Your task to perform on an android device: Turn off the flashlight Image 0: 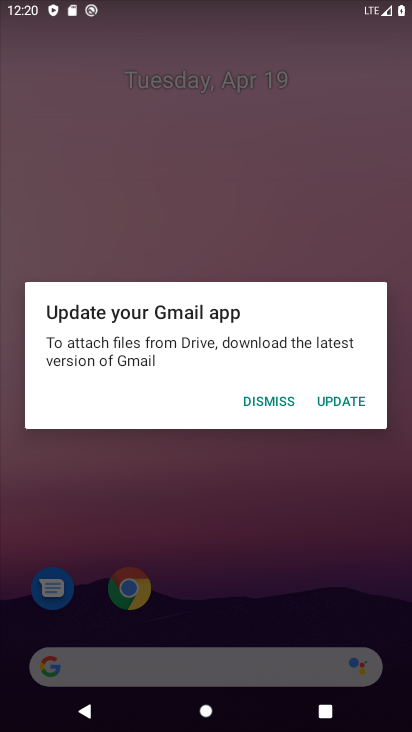
Step 0: press home button
Your task to perform on an android device: Turn off the flashlight Image 1: 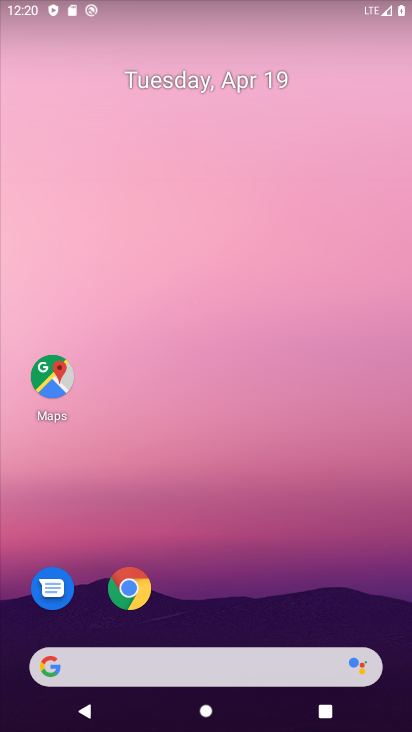
Step 1: drag from (288, 16) to (275, 418)
Your task to perform on an android device: Turn off the flashlight Image 2: 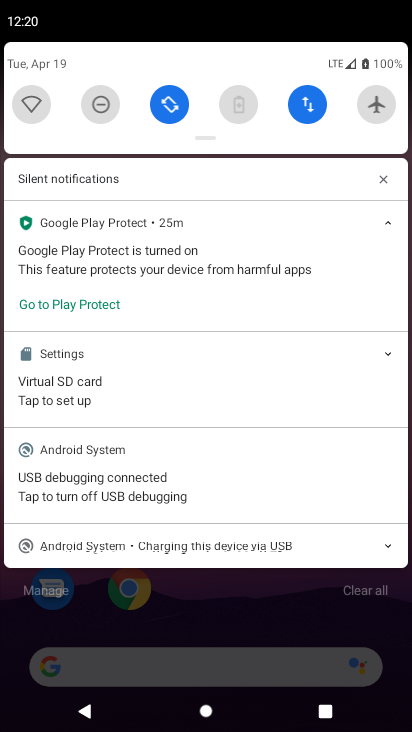
Step 2: drag from (271, 76) to (241, 368)
Your task to perform on an android device: Turn off the flashlight Image 3: 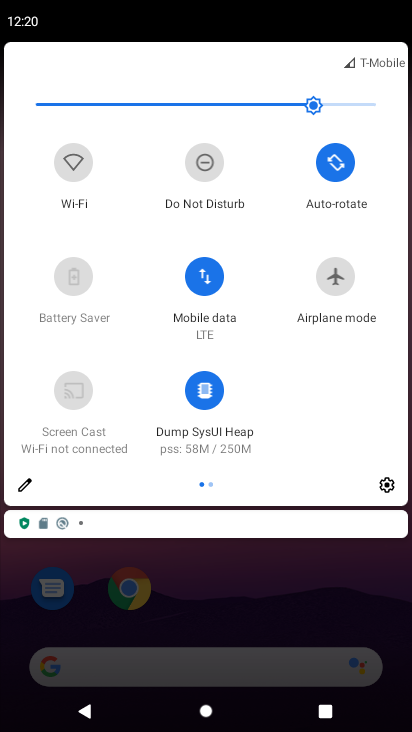
Step 3: click (20, 413)
Your task to perform on an android device: Turn off the flashlight Image 4: 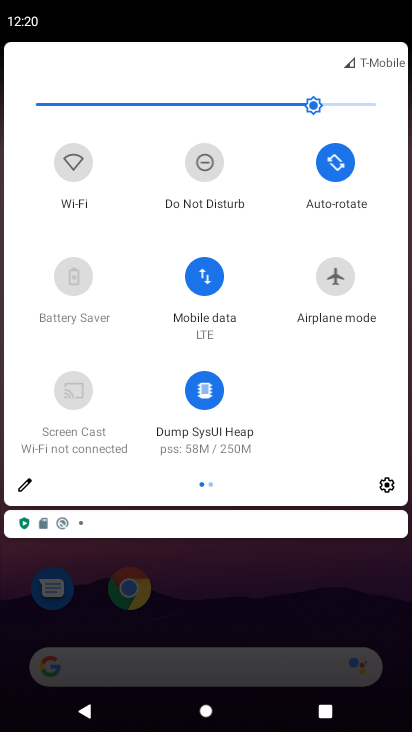
Step 4: click (19, 486)
Your task to perform on an android device: Turn off the flashlight Image 5: 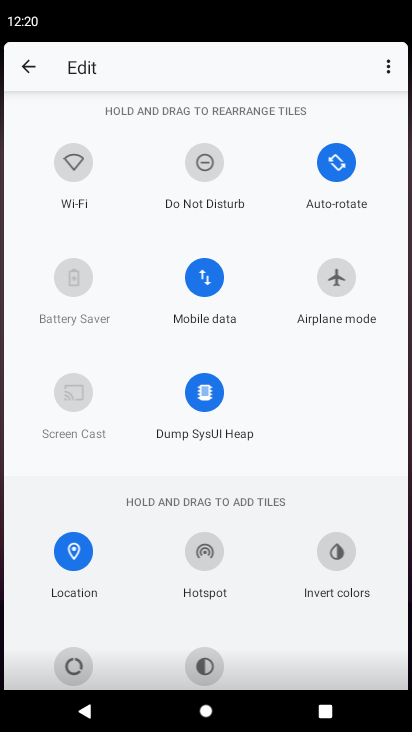
Step 5: task complete